Your task to perform on an android device: Go to ESPN.com Image 0: 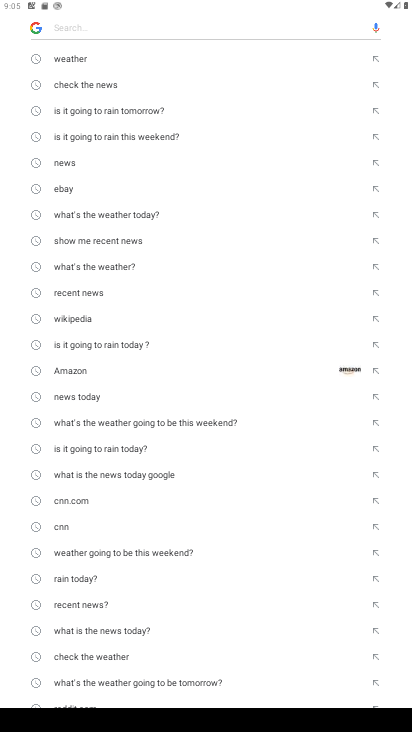
Step 0: press home button
Your task to perform on an android device: Go to ESPN.com Image 1: 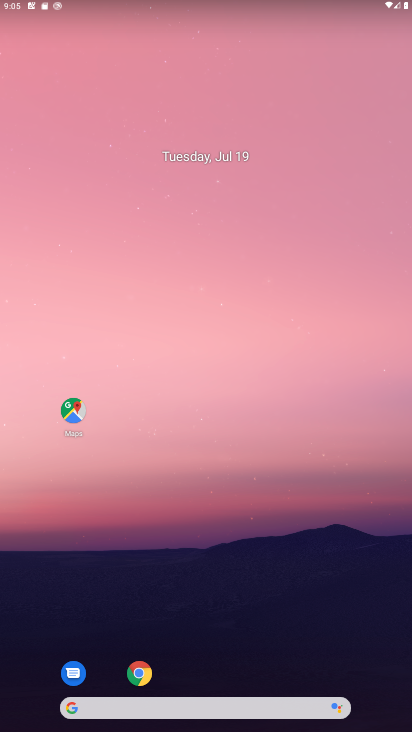
Step 1: click (140, 673)
Your task to perform on an android device: Go to ESPN.com Image 2: 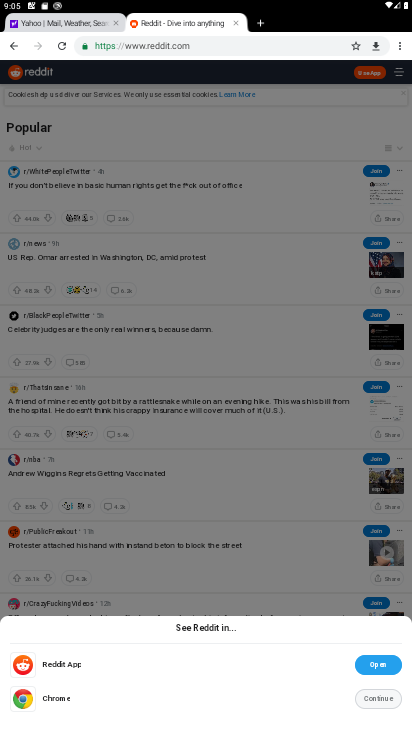
Step 2: click (221, 49)
Your task to perform on an android device: Go to ESPN.com Image 3: 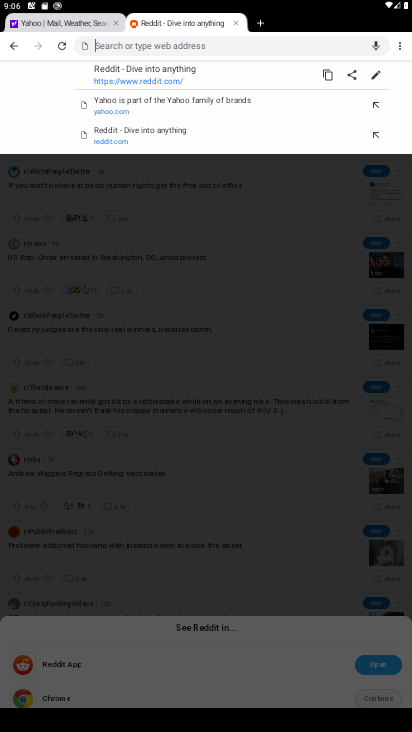
Step 3: type "espn.com"
Your task to perform on an android device: Go to ESPN.com Image 4: 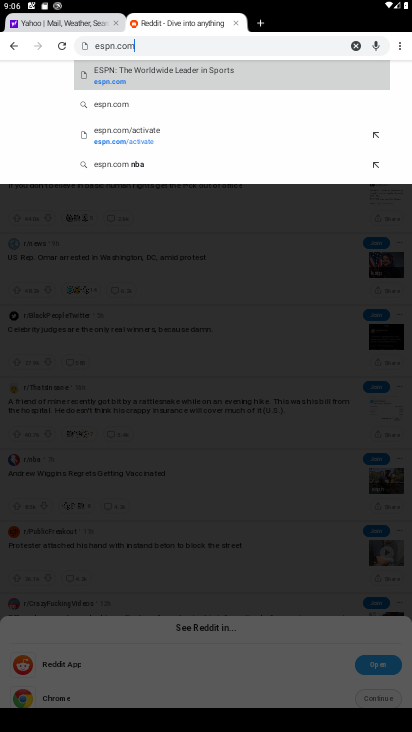
Step 4: click (144, 77)
Your task to perform on an android device: Go to ESPN.com Image 5: 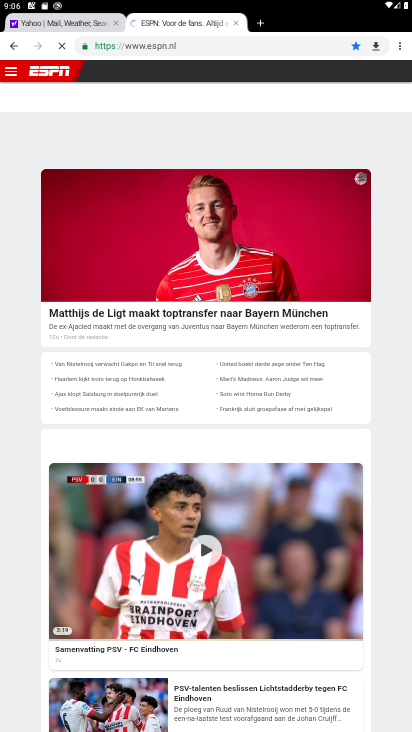
Step 5: task complete